Your task to perform on an android device: Open Google Maps Image 0: 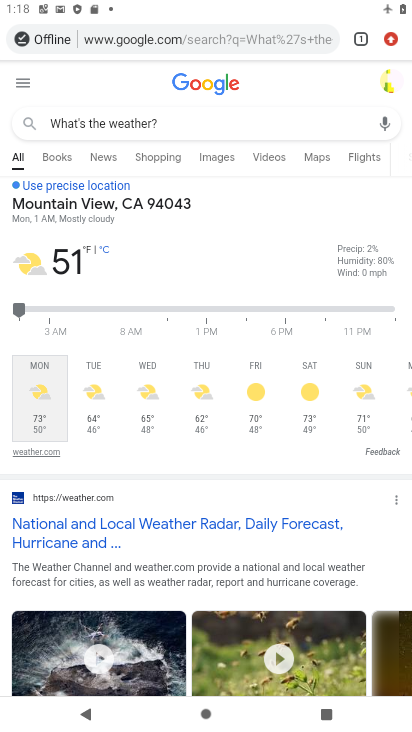
Step 0: press home button
Your task to perform on an android device: Open Google Maps Image 1: 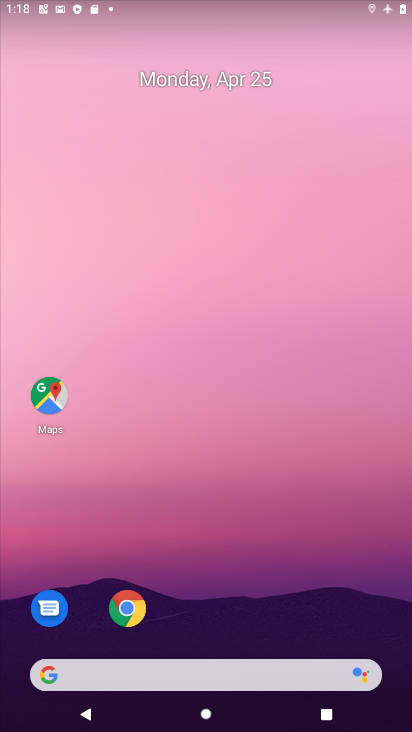
Step 1: click (59, 399)
Your task to perform on an android device: Open Google Maps Image 2: 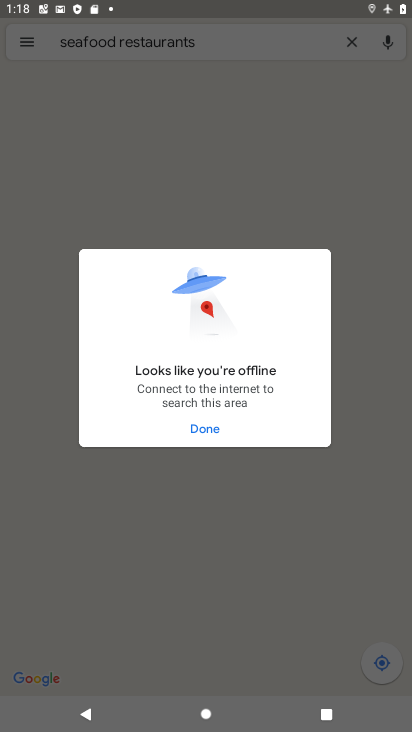
Step 2: click (222, 432)
Your task to perform on an android device: Open Google Maps Image 3: 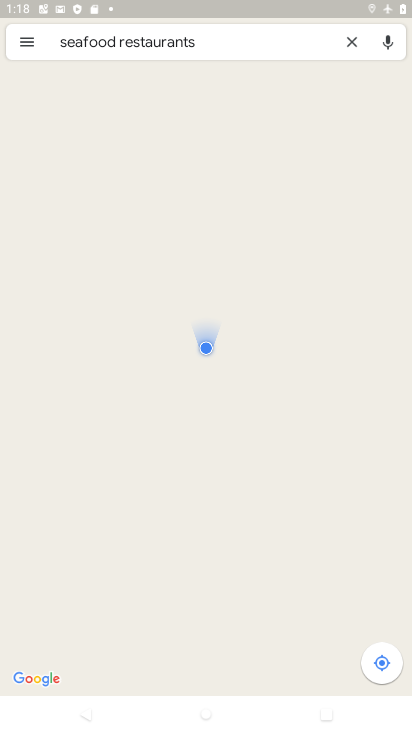
Step 3: task complete